Your task to perform on an android device: Open the calendar and show me this week's events? Image 0: 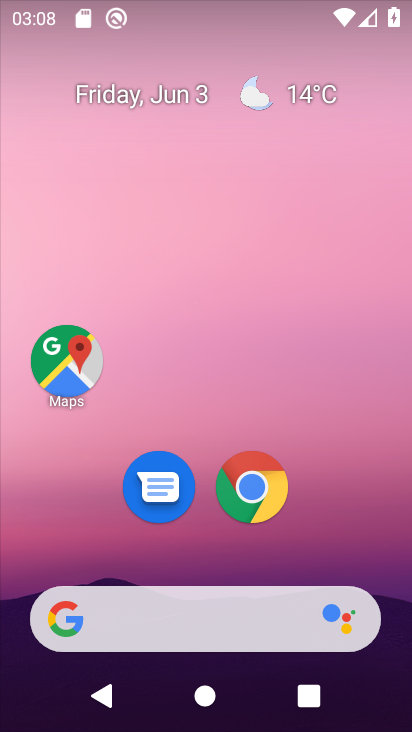
Step 0: click (135, 88)
Your task to perform on an android device: Open the calendar and show me this week's events? Image 1: 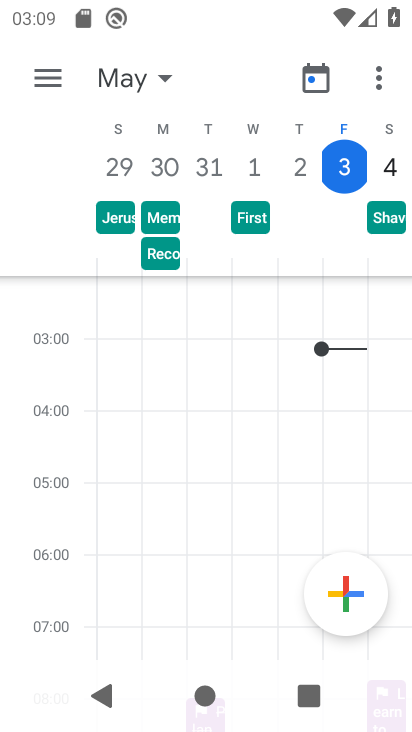
Step 1: task complete